Your task to perform on an android device: Show the shopping cart on ebay.com. Search for usb-c to usb-b on ebay.com, select the first entry, add it to the cart, then select checkout. Image 0: 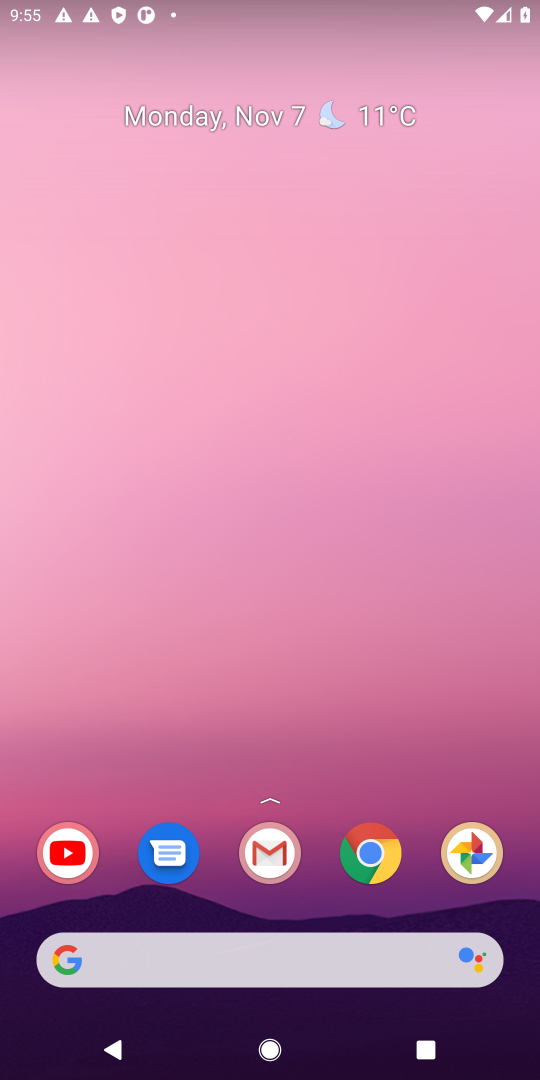
Step 0: click (322, 972)
Your task to perform on an android device: Show the shopping cart on ebay.com. Search for usb-c to usb-b on ebay.com, select the first entry, add it to the cart, then select checkout. Image 1: 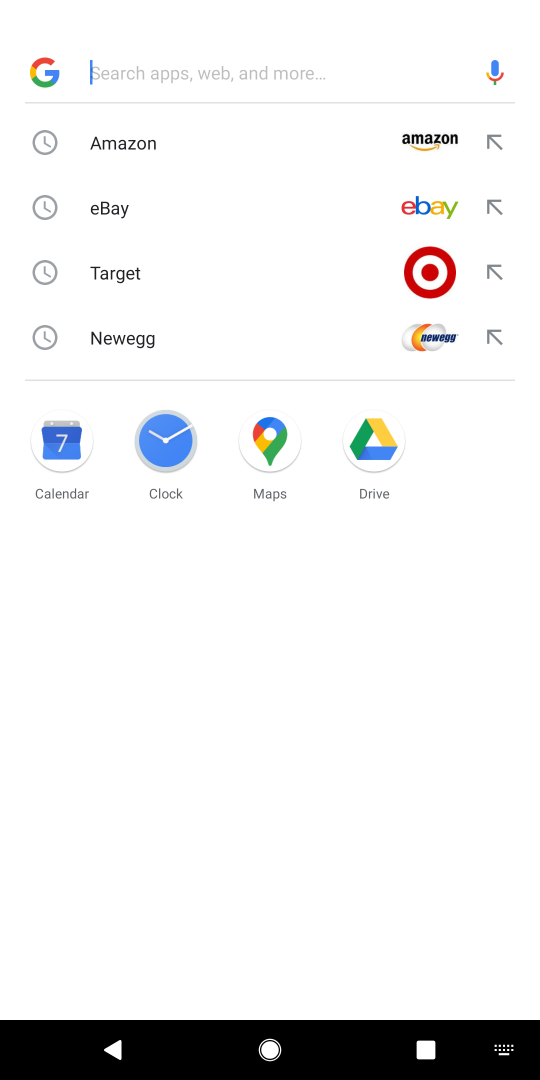
Step 1: click (152, 198)
Your task to perform on an android device: Show the shopping cart on ebay.com. Search for usb-c to usb-b on ebay.com, select the first entry, add it to the cart, then select checkout. Image 2: 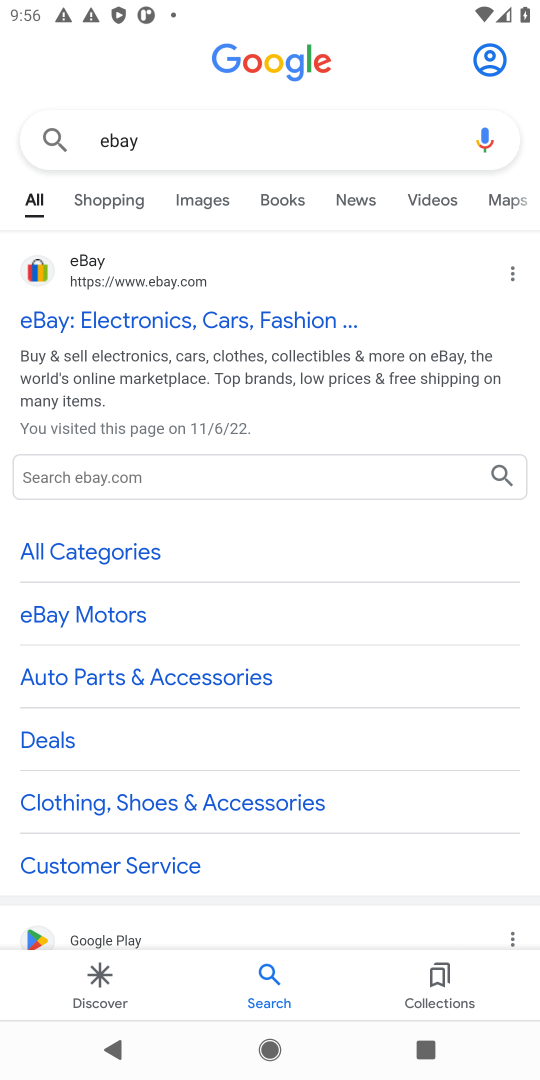
Step 2: click (246, 331)
Your task to perform on an android device: Show the shopping cart on ebay.com. Search for usb-c to usb-b on ebay.com, select the first entry, add it to the cart, then select checkout. Image 3: 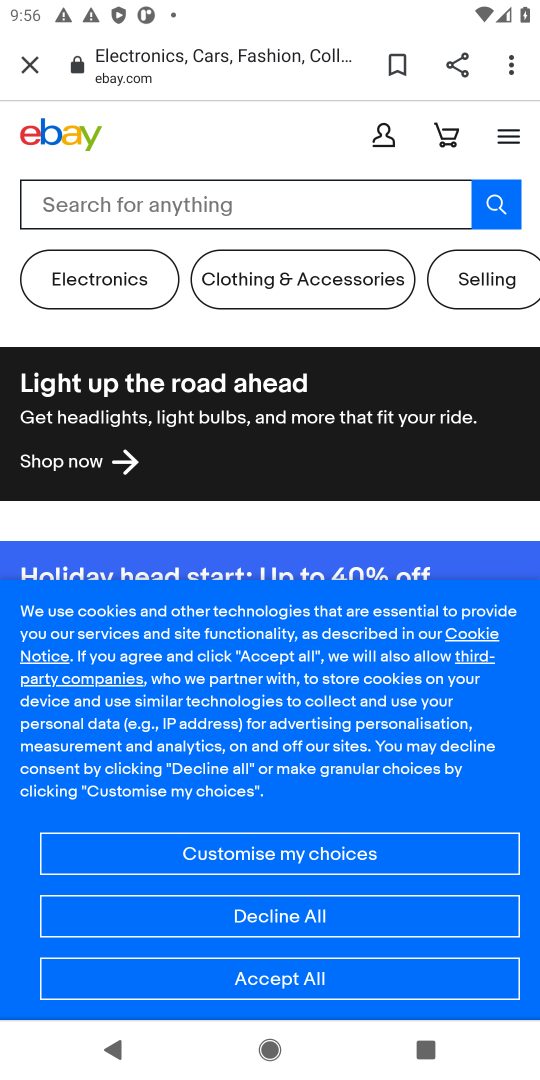
Step 3: task complete